Your task to perform on an android device: Search for pizza restaurants on Maps Image 0: 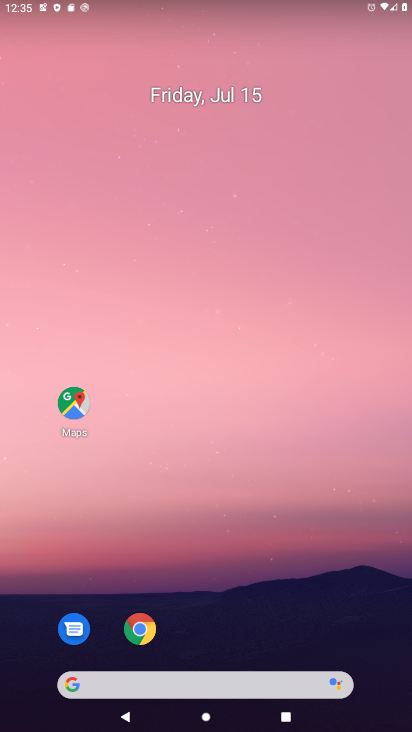
Step 0: drag from (258, 618) to (119, 0)
Your task to perform on an android device: Search for pizza restaurants on Maps Image 1: 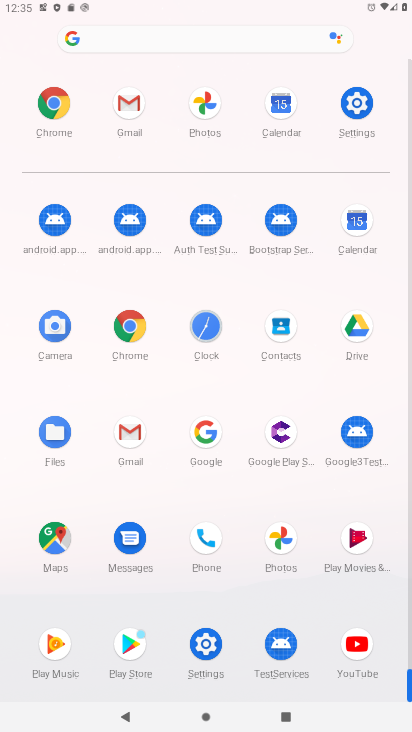
Step 1: click (60, 541)
Your task to perform on an android device: Search for pizza restaurants on Maps Image 2: 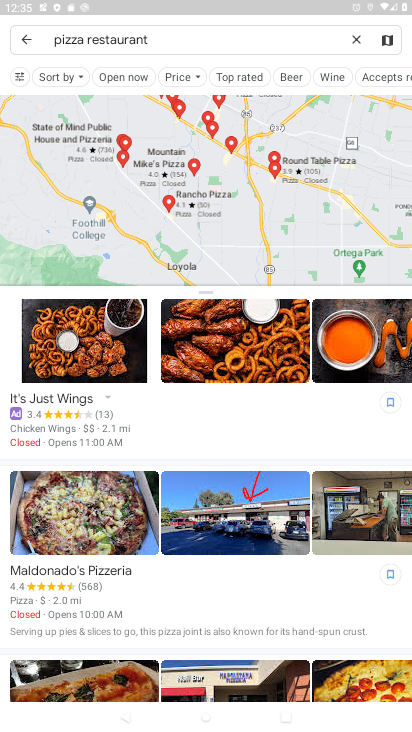
Step 2: click (355, 41)
Your task to perform on an android device: Search for pizza restaurants on Maps Image 3: 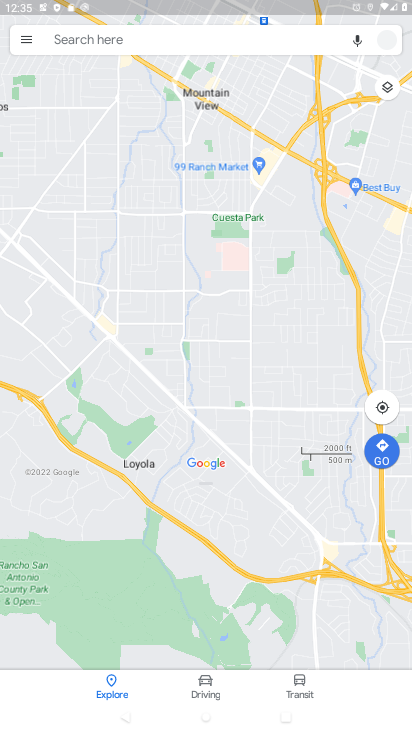
Step 3: click (152, 36)
Your task to perform on an android device: Search for pizza restaurants on Maps Image 4: 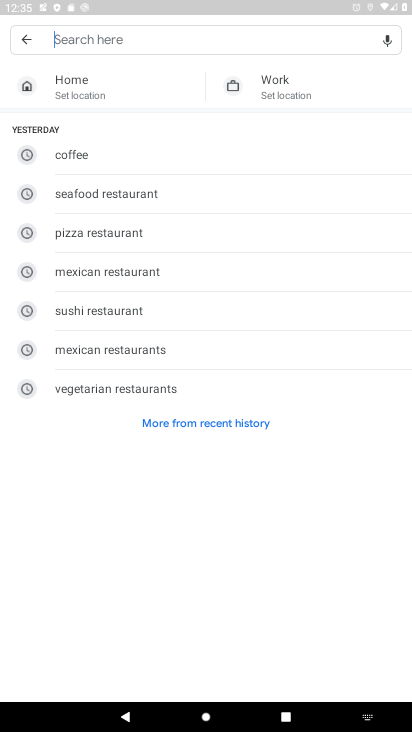
Step 4: click (109, 236)
Your task to perform on an android device: Search for pizza restaurants on Maps Image 5: 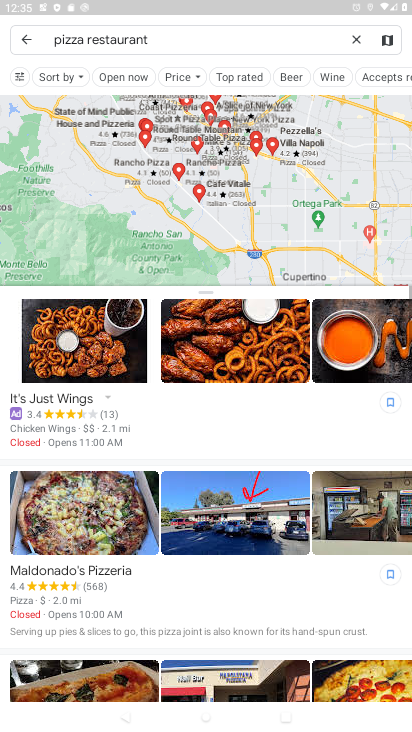
Step 5: task complete